Your task to perform on an android device: change notifications settings Image 0: 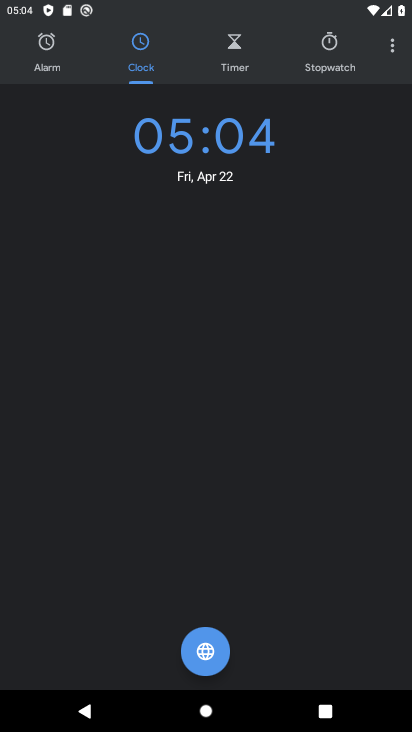
Step 0: press home button
Your task to perform on an android device: change notifications settings Image 1: 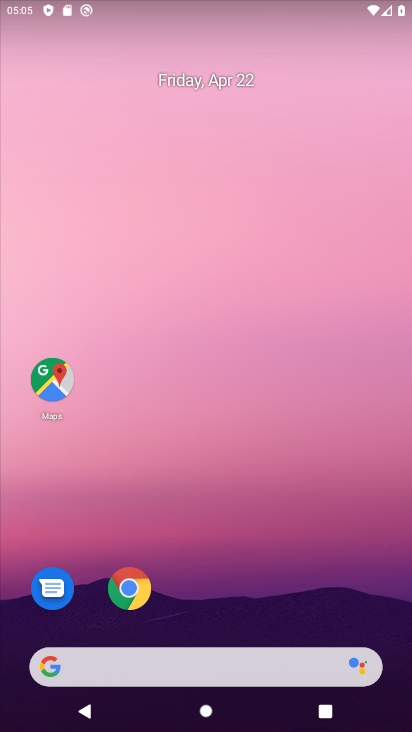
Step 1: drag from (252, 544) to (262, 56)
Your task to perform on an android device: change notifications settings Image 2: 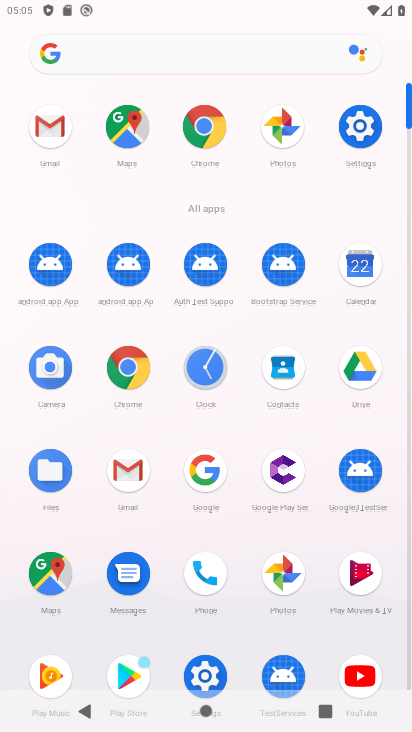
Step 2: click (362, 127)
Your task to perform on an android device: change notifications settings Image 3: 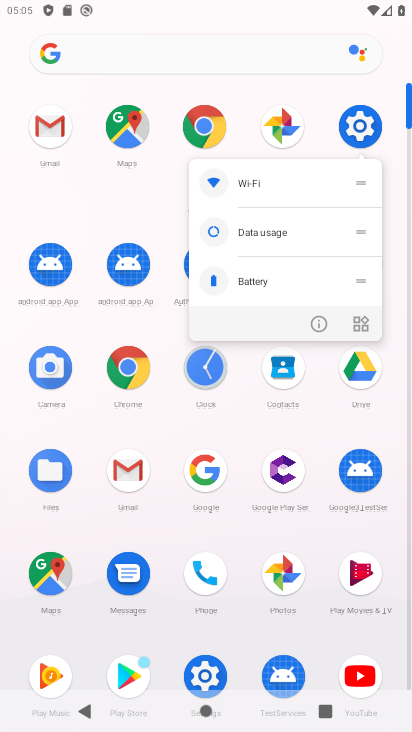
Step 3: click (360, 126)
Your task to perform on an android device: change notifications settings Image 4: 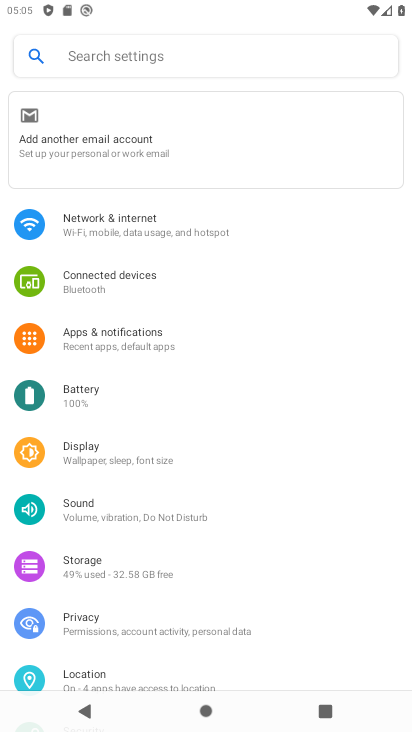
Step 4: click (118, 335)
Your task to perform on an android device: change notifications settings Image 5: 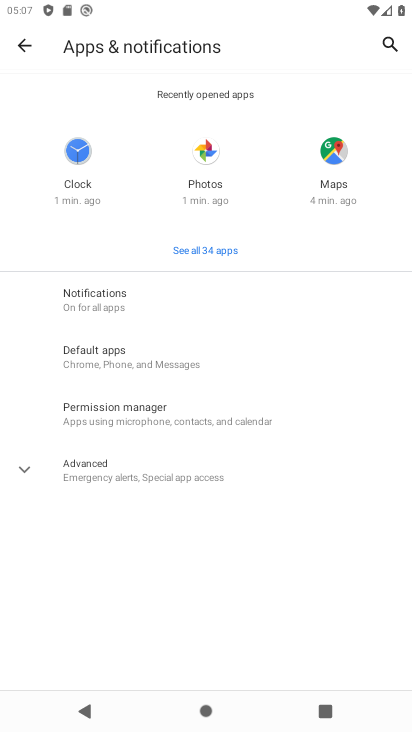
Step 5: click (108, 302)
Your task to perform on an android device: change notifications settings Image 6: 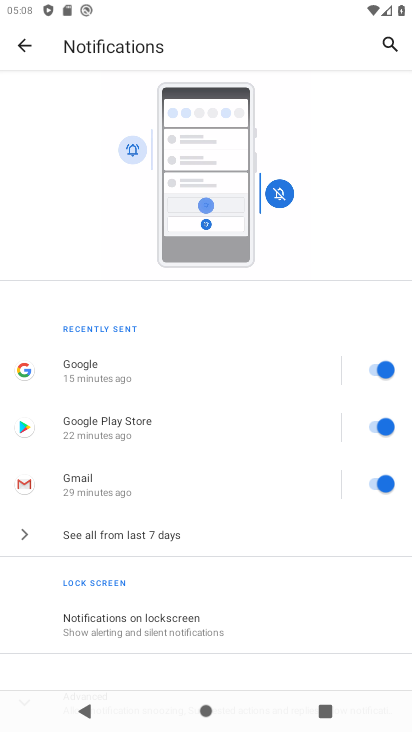
Step 6: click (373, 429)
Your task to perform on an android device: change notifications settings Image 7: 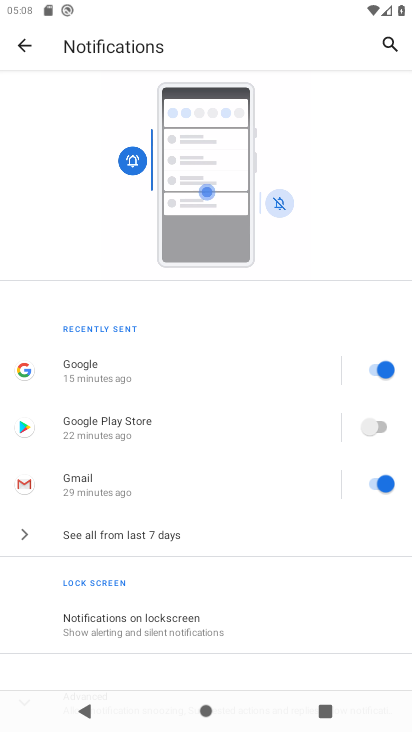
Step 7: task complete